Your task to perform on an android device: Find coffee shops on Maps Image 0: 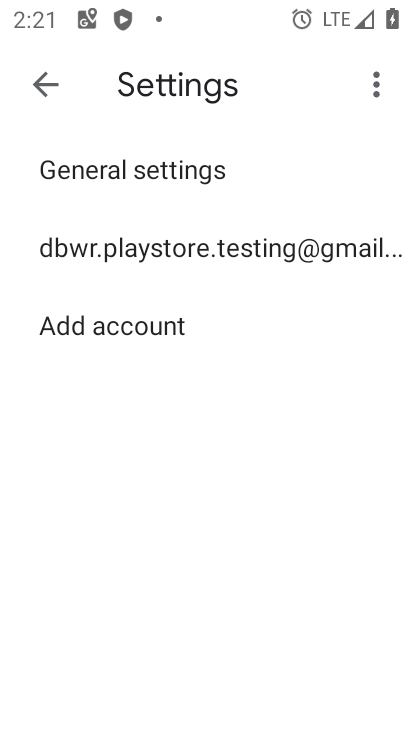
Step 0: press back button
Your task to perform on an android device: Find coffee shops on Maps Image 1: 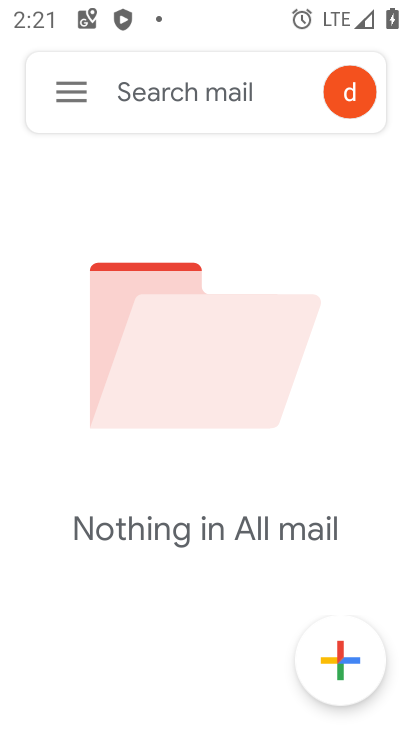
Step 1: press back button
Your task to perform on an android device: Find coffee shops on Maps Image 2: 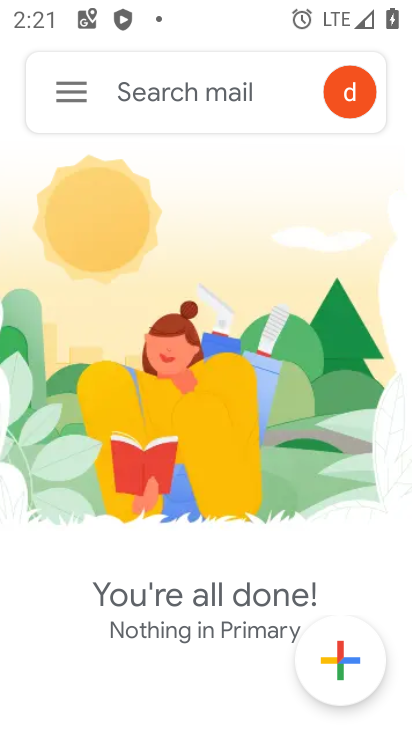
Step 2: press home button
Your task to perform on an android device: Find coffee shops on Maps Image 3: 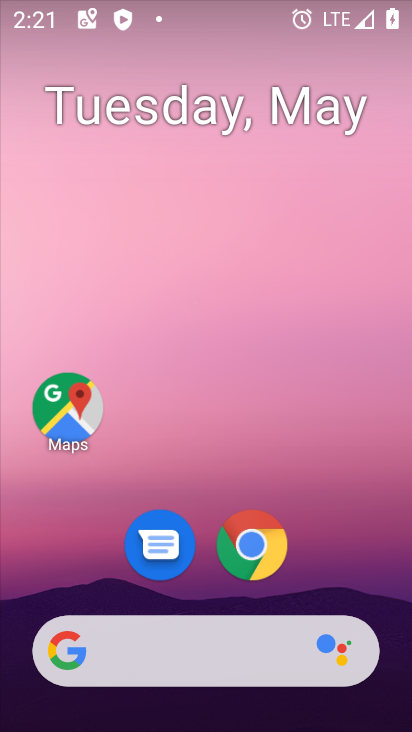
Step 3: drag from (320, 563) to (246, 34)
Your task to perform on an android device: Find coffee shops on Maps Image 4: 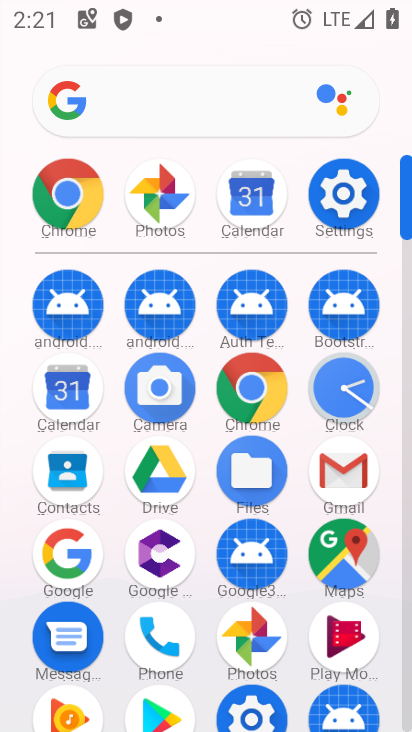
Step 4: click (341, 548)
Your task to perform on an android device: Find coffee shops on Maps Image 5: 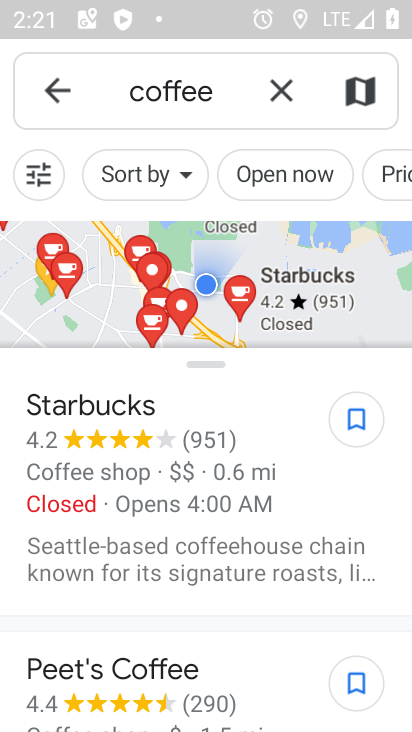
Step 5: task complete